Your task to perform on an android device: toggle priority inbox in the gmail app Image 0: 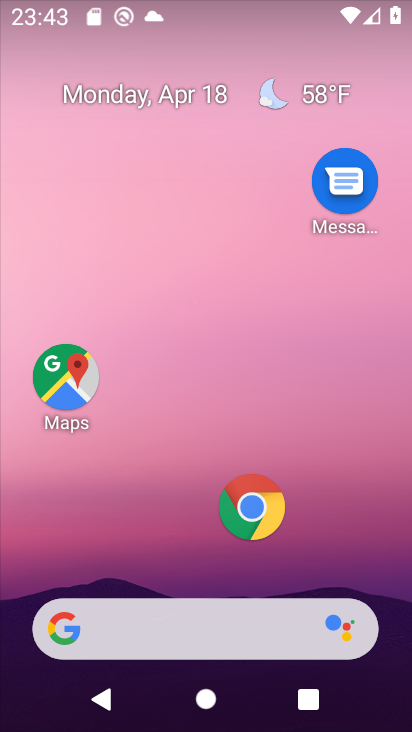
Step 0: drag from (177, 527) to (314, 3)
Your task to perform on an android device: toggle priority inbox in the gmail app Image 1: 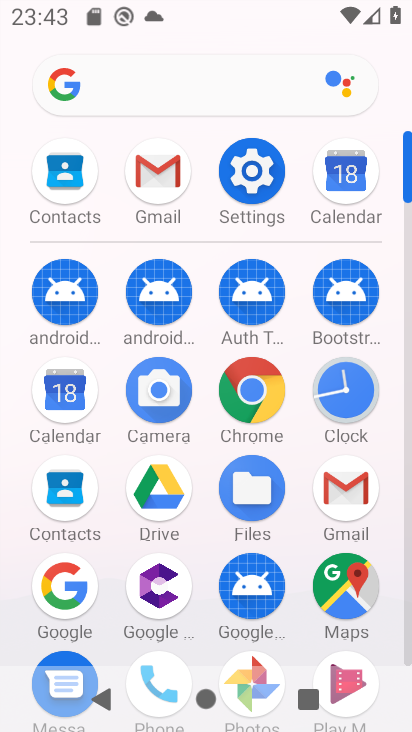
Step 1: click (349, 501)
Your task to perform on an android device: toggle priority inbox in the gmail app Image 2: 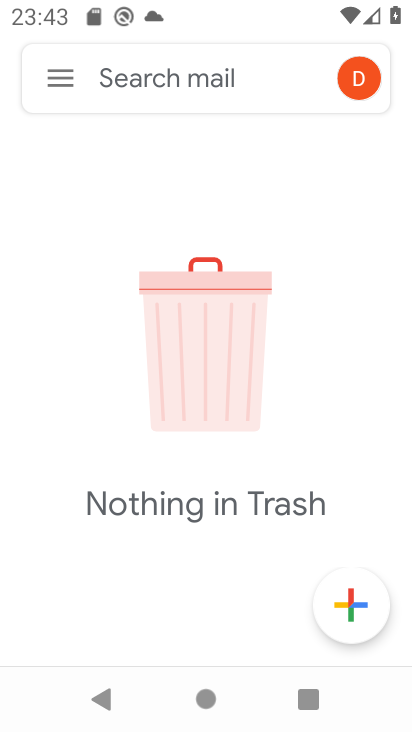
Step 2: click (62, 78)
Your task to perform on an android device: toggle priority inbox in the gmail app Image 3: 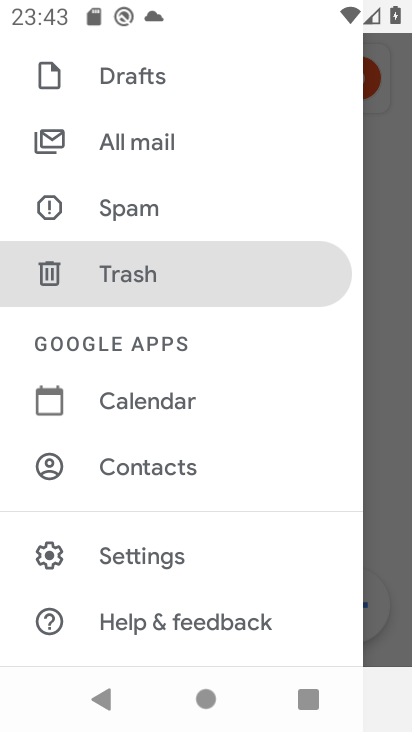
Step 3: click (165, 566)
Your task to perform on an android device: toggle priority inbox in the gmail app Image 4: 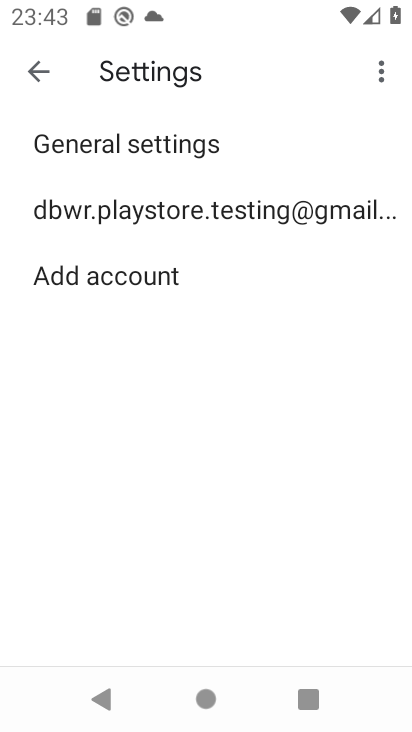
Step 4: click (173, 216)
Your task to perform on an android device: toggle priority inbox in the gmail app Image 5: 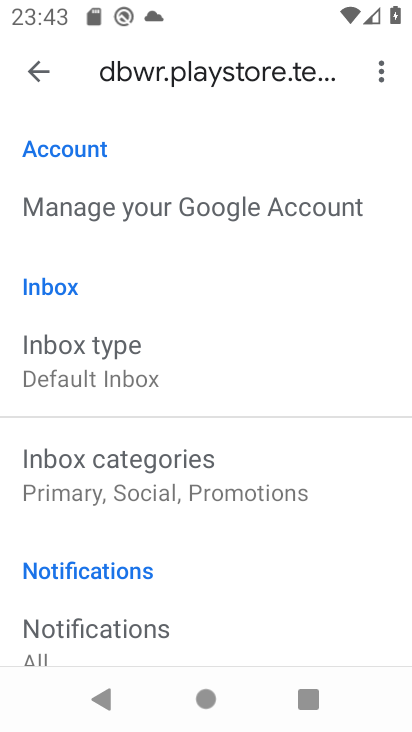
Step 5: click (141, 368)
Your task to perform on an android device: toggle priority inbox in the gmail app Image 6: 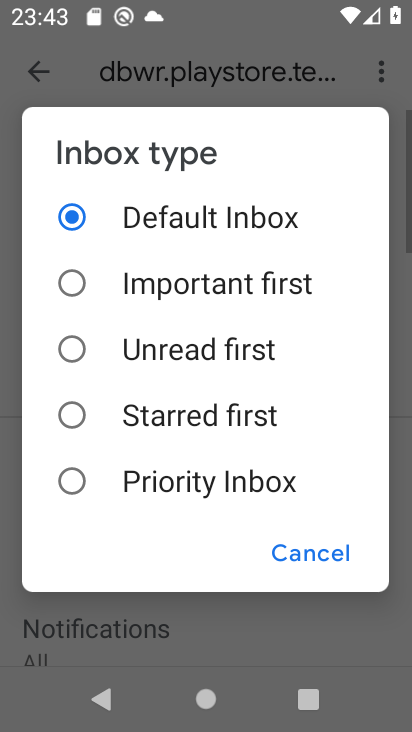
Step 6: click (60, 477)
Your task to perform on an android device: toggle priority inbox in the gmail app Image 7: 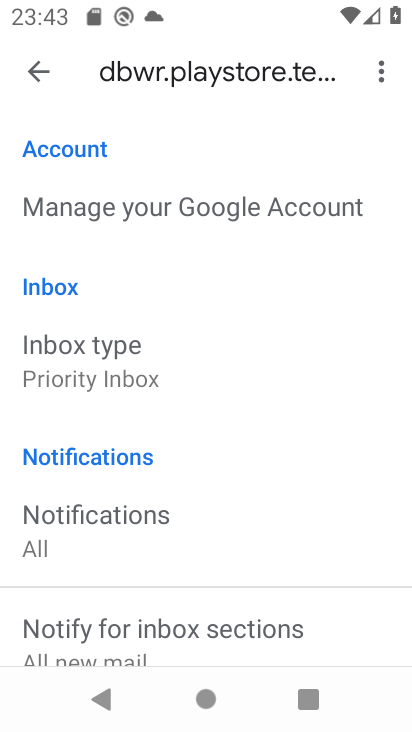
Step 7: task complete